Your task to perform on an android device: delete the emails in spam in the gmail app Image 0: 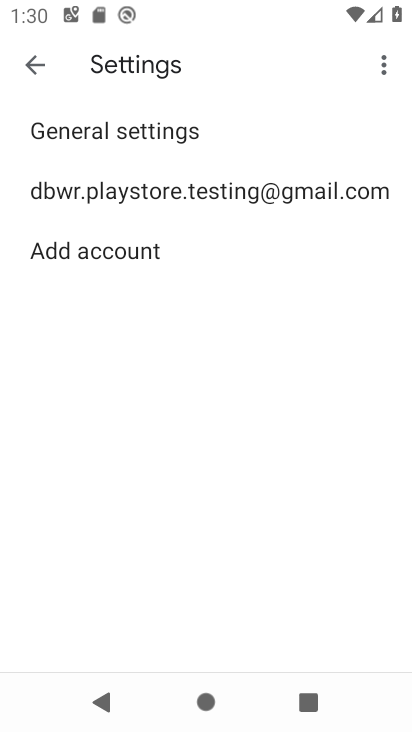
Step 0: press home button
Your task to perform on an android device: delete the emails in spam in the gmail app Image 1: 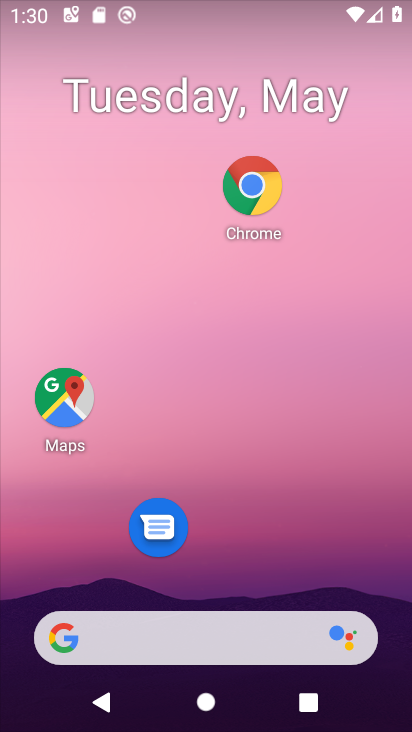
Step 1: drag from (293, 534) to (173, 4)
Your task to perform on an android device: delete the emails in spam in the gmail app Image 2: 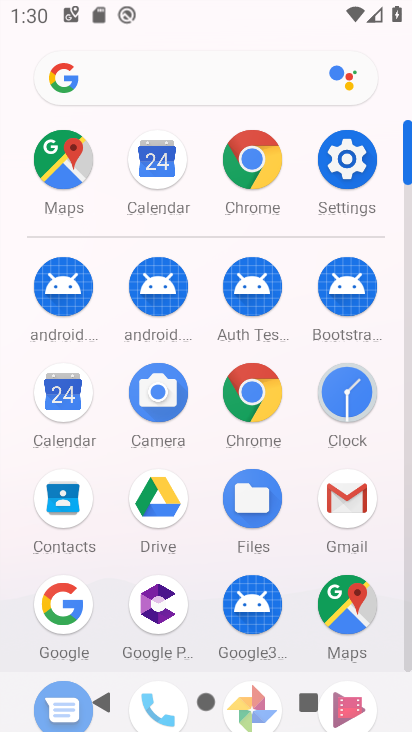
Step 2: click (336, 502)
Your task to perform on an android device: delete the emails in spam in the gmail app Image 3: 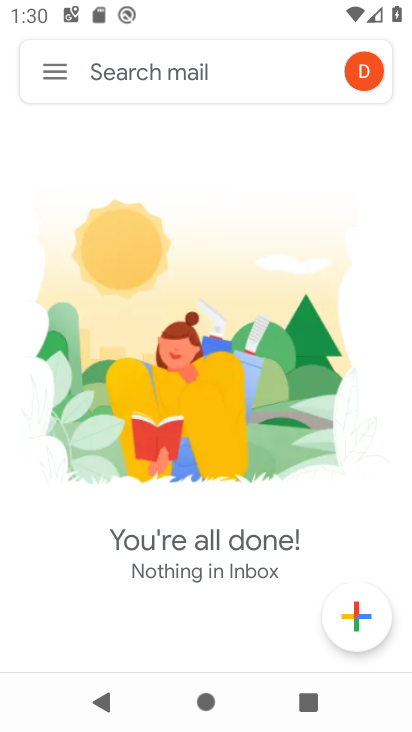
Step 3: click (51, 75)
Your task to perform on an android device: delete the emails in spam in the gmail app Image 4: 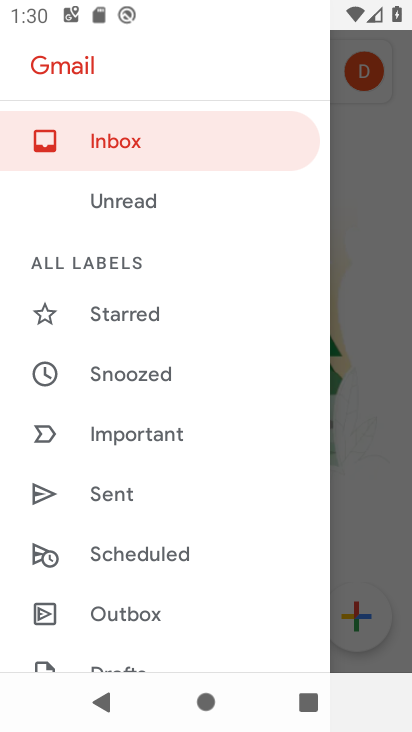
Step 4: drag from (221, 464) to (181, 4)
Your task to perform on an android device: delete the emails in spam in the gmail app Image 5: 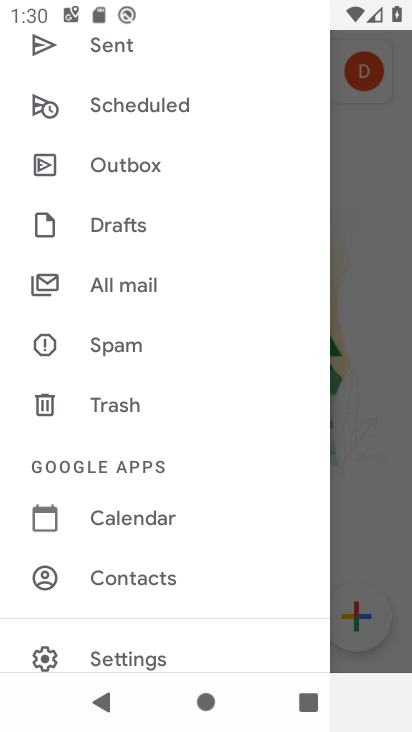
Step 5: click (129, 343)
Your task to perform on an android device: delete the emails in spam in the gmail app Image 6: 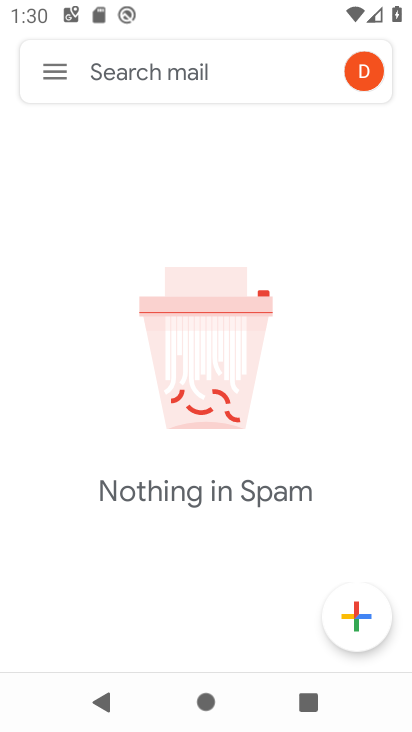
Step 6: task complete